Your task to perform on an android device: turn off translation in the chrome app Image 0: 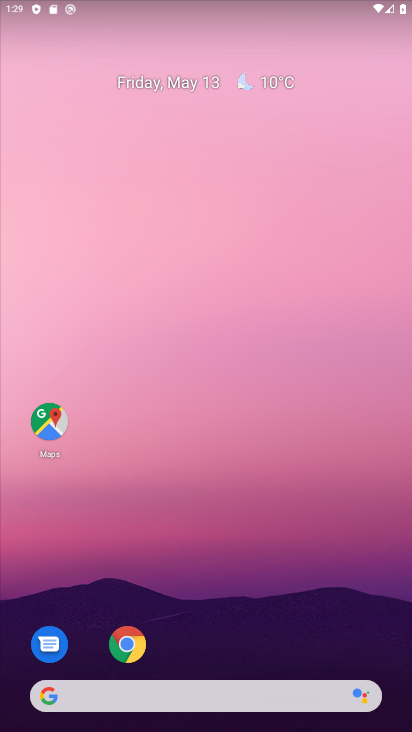
Step 0: drag from (248, 673) to (344, 27)
Your task to perform on an android device: turn off translation in the chrome app Image 1: 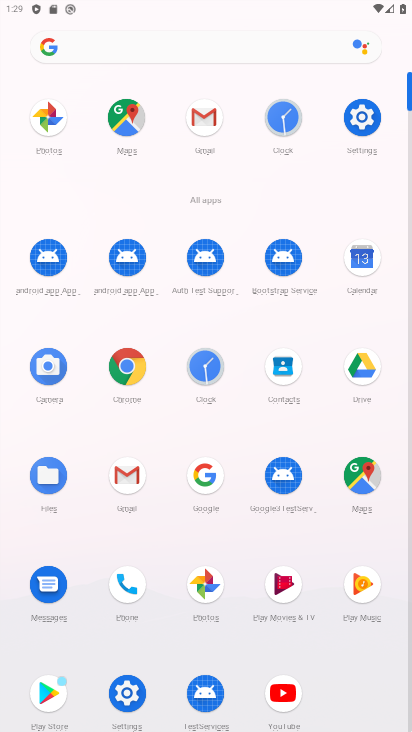
Step 1: click (131, 367)
Your task to perform on an android device: turn off translation in the chrome app Image 2: 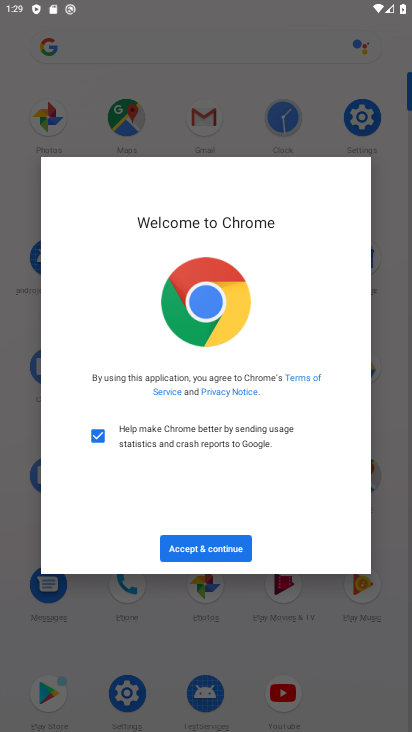
Step 2: click (198, 544)
Your task to perform on an android device: turn off translation in the chrome app Image 3: 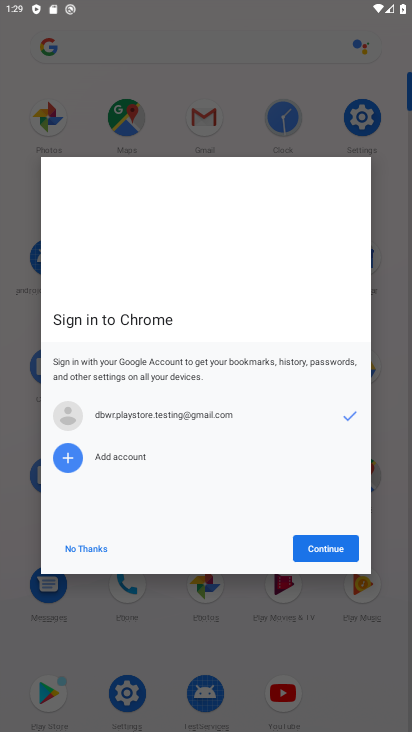
Step 3: click (94, 549)
Your task to perform on an android device: turn off translation in the chrome app Image 4: 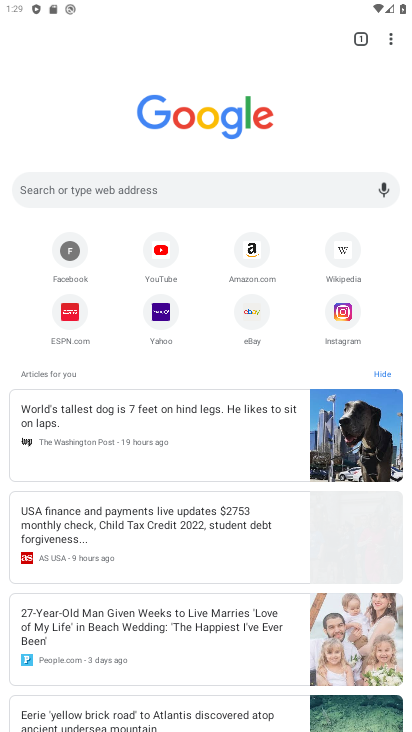
Step 4: drag from (396, 34) to (266, 332)
Your task to perform on an android device: turn off translation in the chrome app Image 5: 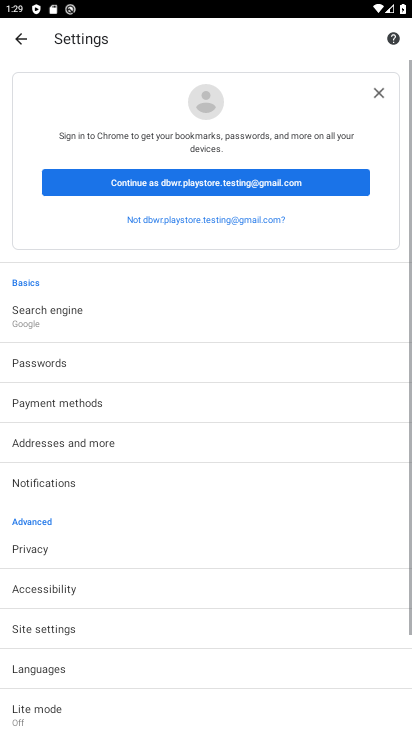
Step 5: drag from (214, 602) to (246, 74)
Your task to perform on an android device: turn off translation in the chrome app Image 6: 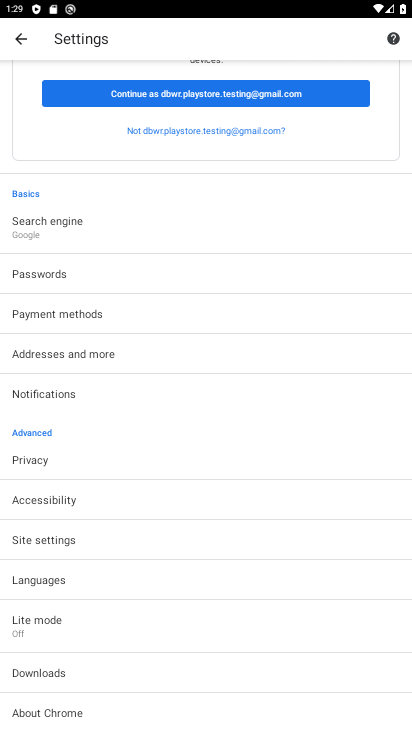
Step 6: drag from (241, 670) to (282, 78)
Your task to perform on an android device: turn off translation in the chrome app Image 7: 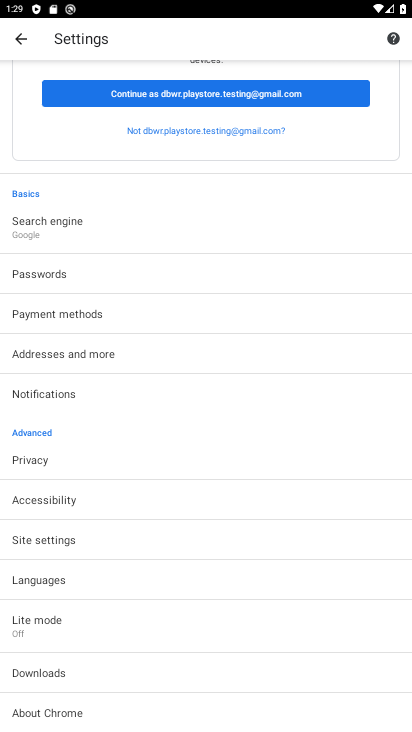
Step 7: click (103, 582)
Your task to perform on an android device: turn off translation in the chrome app Image 8: 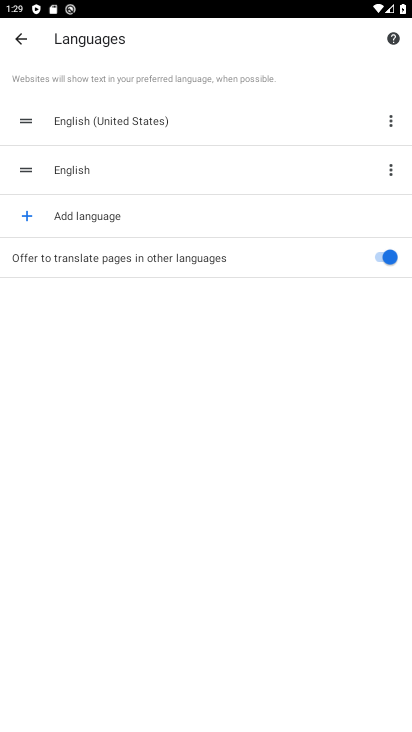
Step 8: click (383, 254)
Your task to perform on an android device: turn off translation in the chrome app Image 9: 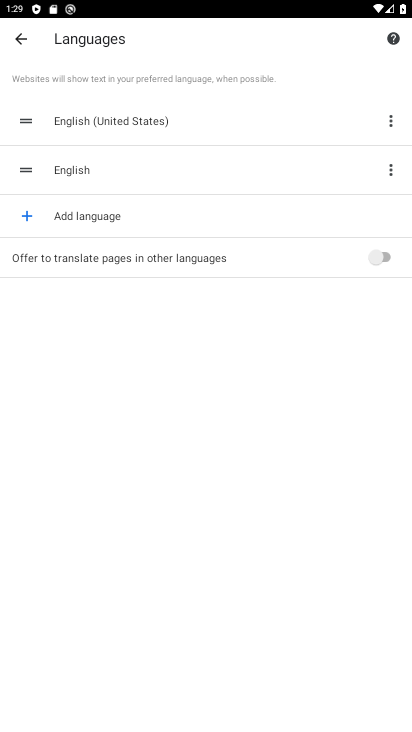
Step 9: task complete